Your task to perform on an android device: Open Google Chrome and open the bookmarks view Image 0: 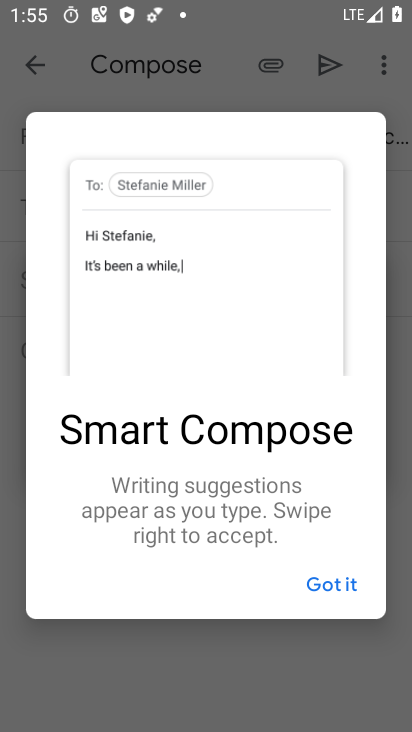
Step 0: press home button
Your task to perform on an android device: Open Google Chrome and open the bookmarks view Image 1: 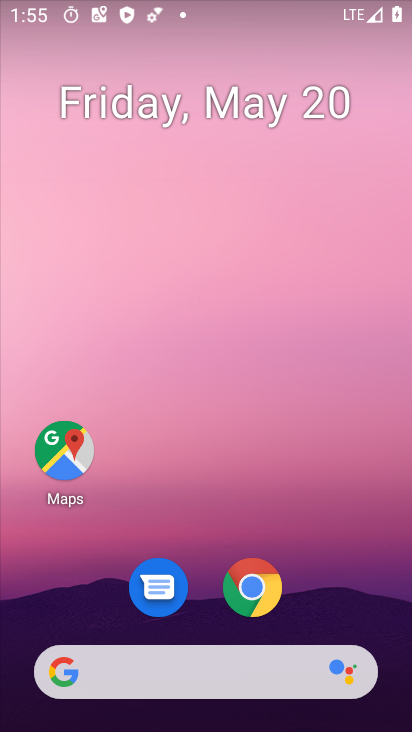
Step 1: click (252, 586)
Your task to perform on an android device: Open Google Chrome and open the bookmarks view Image 2: 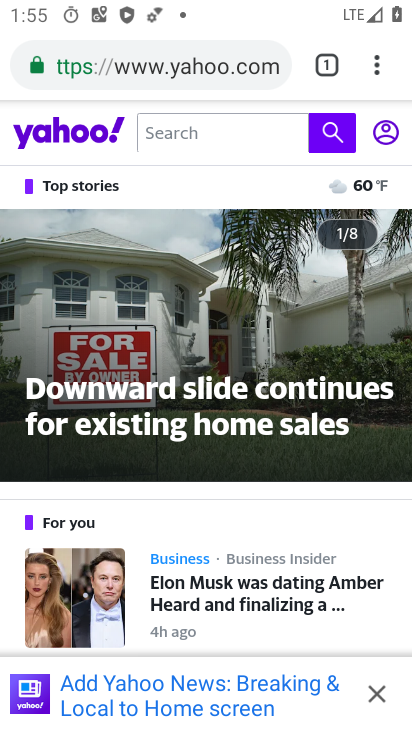
Step 2: task complete